Your task to perform on an android device: Go to eBay Image 0: 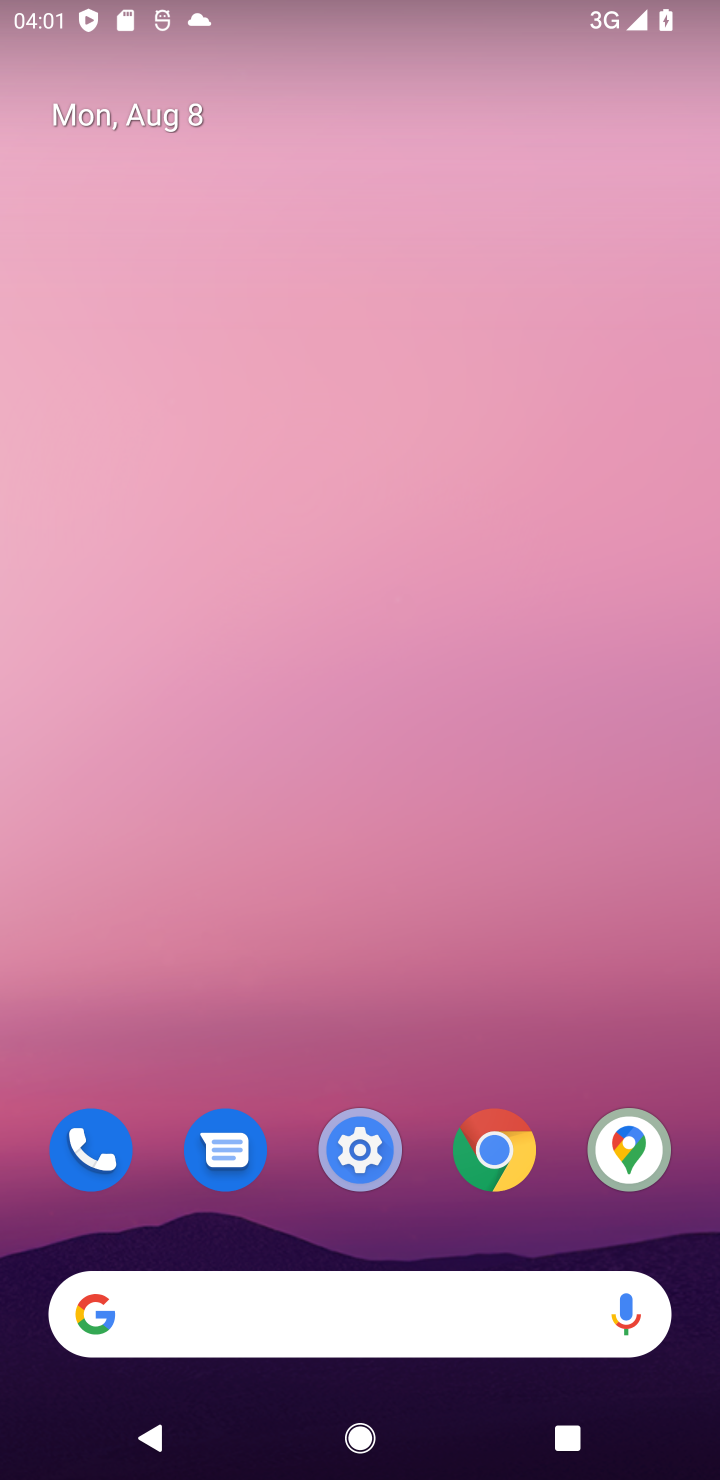
Step 0: click (153, 1310)
Your task to perform on an android device: Go to eBay Image 1: 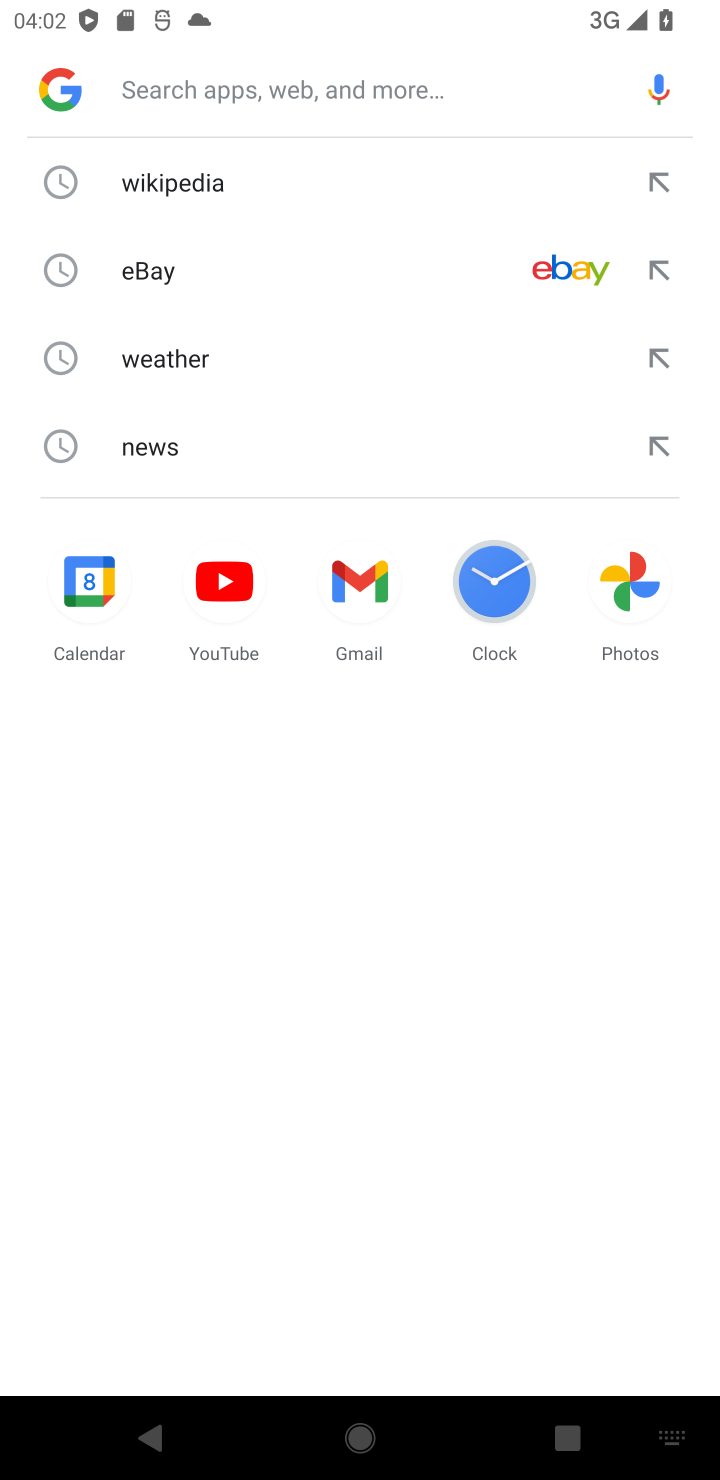
Step 1: click (155, 274)
Your task to perform on an android device: Go to eBay Image 2: 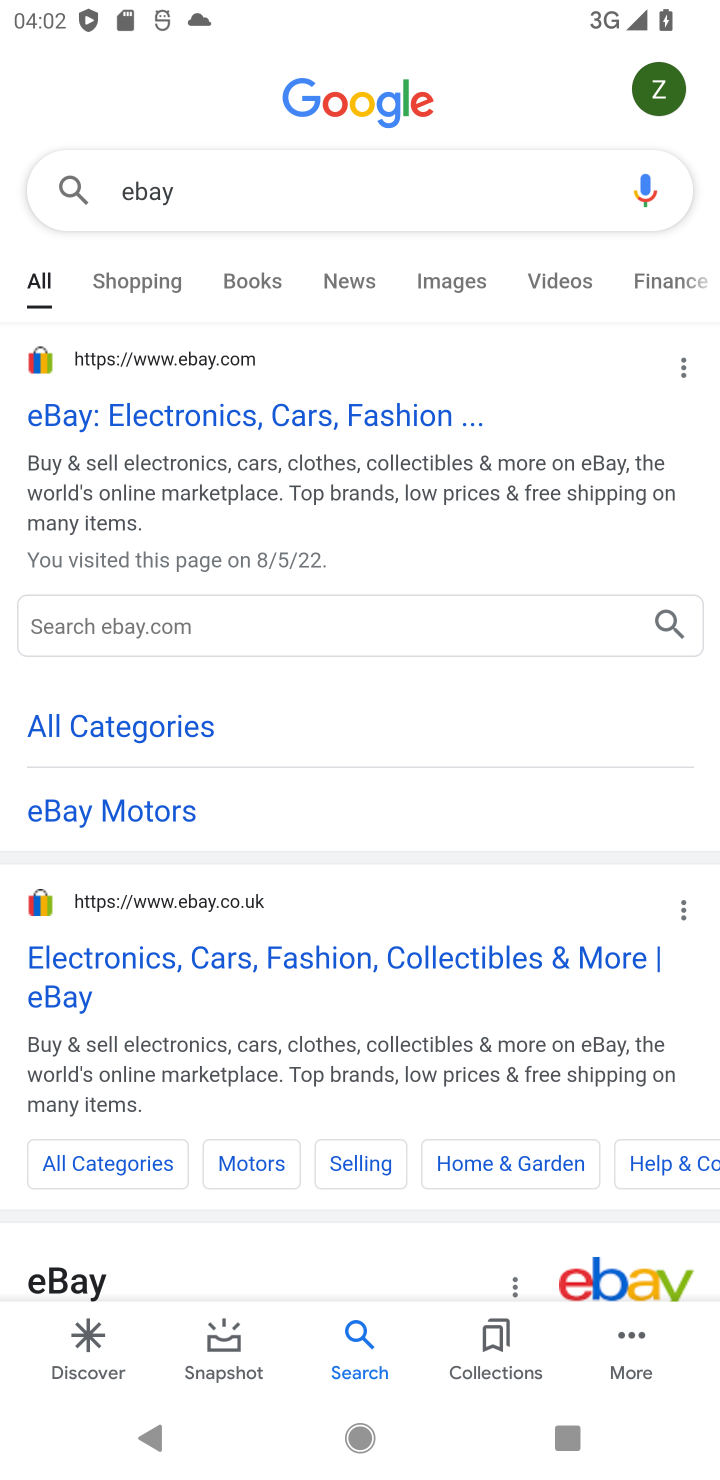
Step 2: task complete